Your task to perform on an android device: Is it going to rain today? Image 0: 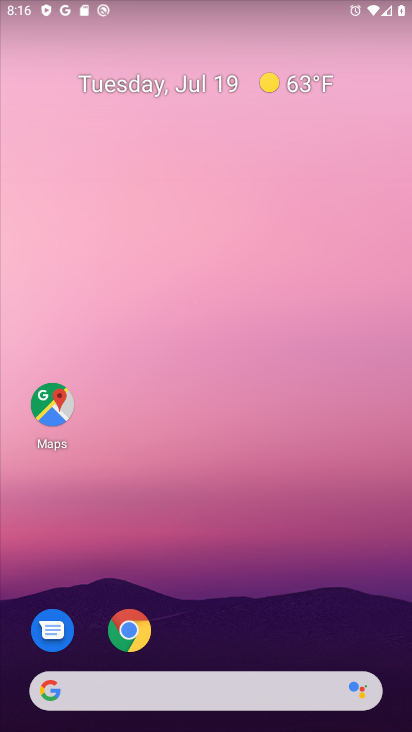
Step 0: click (267, 686)
Your task to perform on an android device: Is it going to rain today? Image 1: 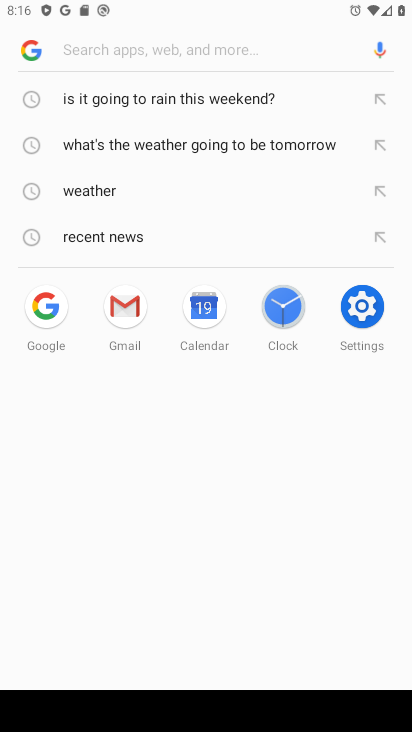
Step 1: type "is it going to rain today"
Your task to perform on an android device: Is it going to rain today? Image 2: 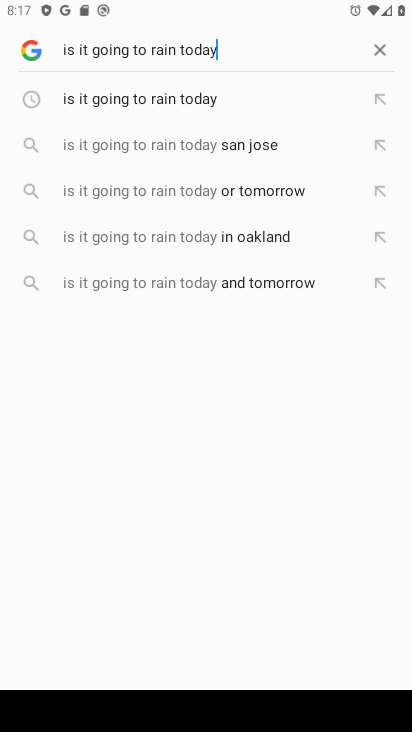
Step 2: click (138, 96)
Your task to perform on an android device: Is it going to rain today? Image 3: 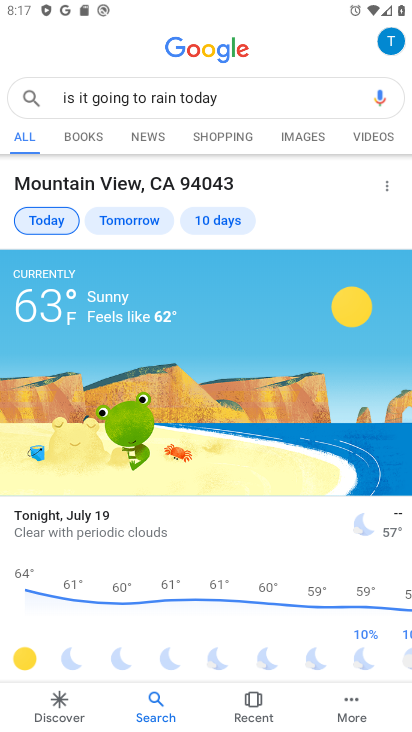
Step 3: task complete